Your task to perform on an android device: Turn on the flashlight Image 0: 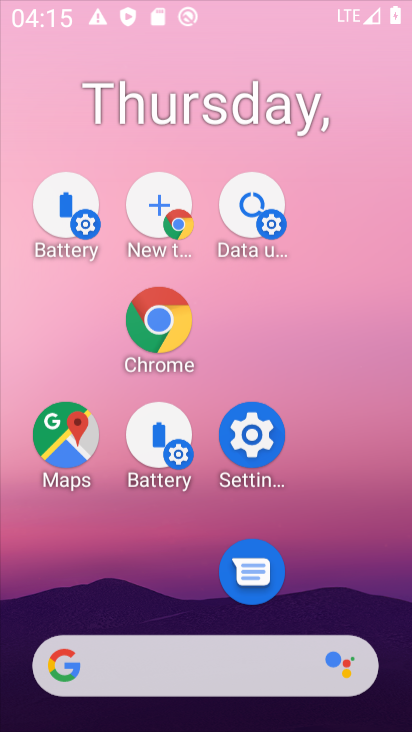
Step 0: drag from (209, 439) to (188, 164)
Your task to perform on an android device: Turn on the flashlight Image 1: 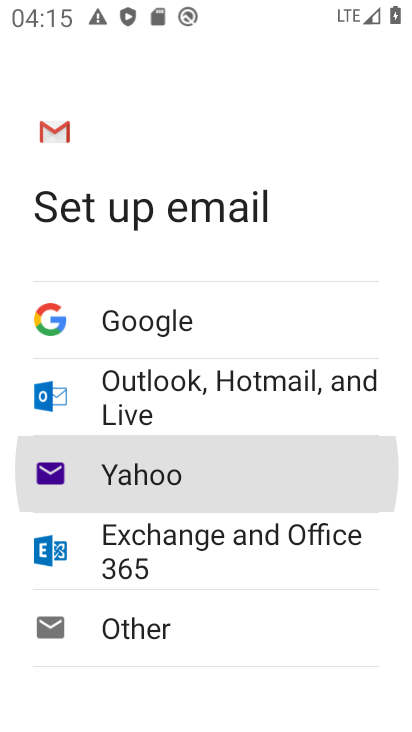
Step 1: task complete